Your task to perform on an android device: Open the Play Movies app and select the watchlist tab. Image 0: 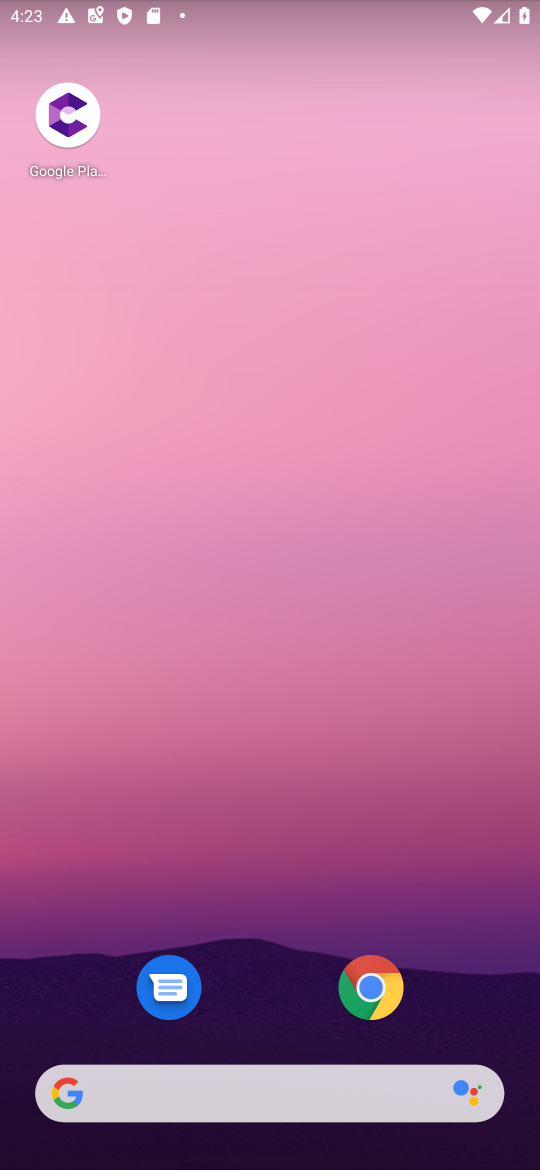
Step 0: drag from (237, 989) to (295, 511)
Your task to perform on an android device: Open the Play Movies app and select the watchlist tab. Image 1: 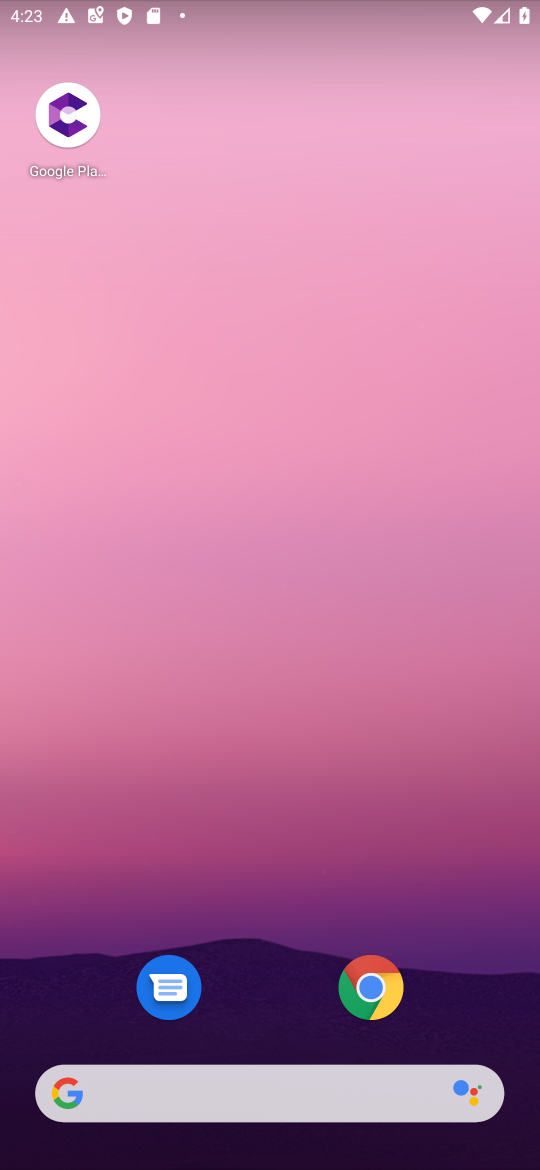
Step 1: drag from (282, 986) to (346, 13)
Your task to perform on an android device: Open the Play Movies app and select the watchlist tab. Image 2: 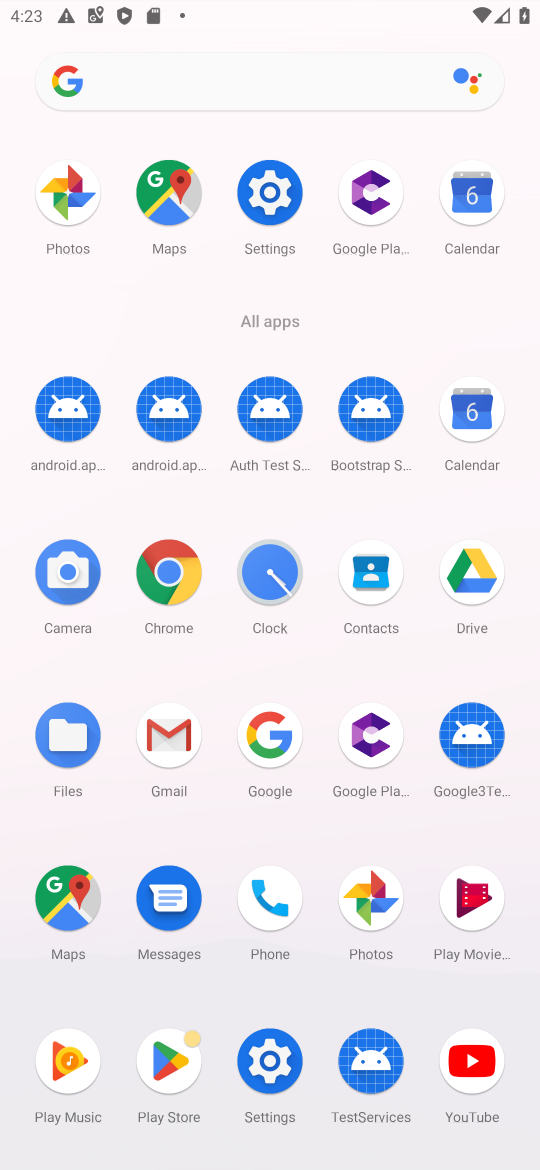
Step 2: click (477, 924)
Your task to perform on an android device: Open the Play Movies app and select the watchlist tab. Image 3: 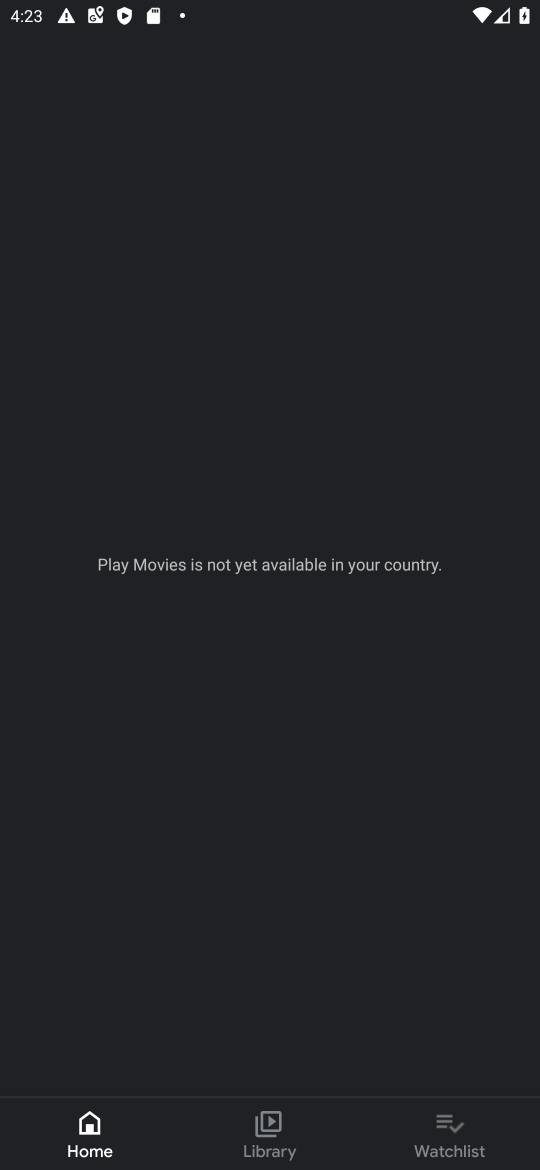
Step 3: click (460, 1131)
Your task to perform on an android device: Open the Play Movies app and select the watchlist tab. Image 4: 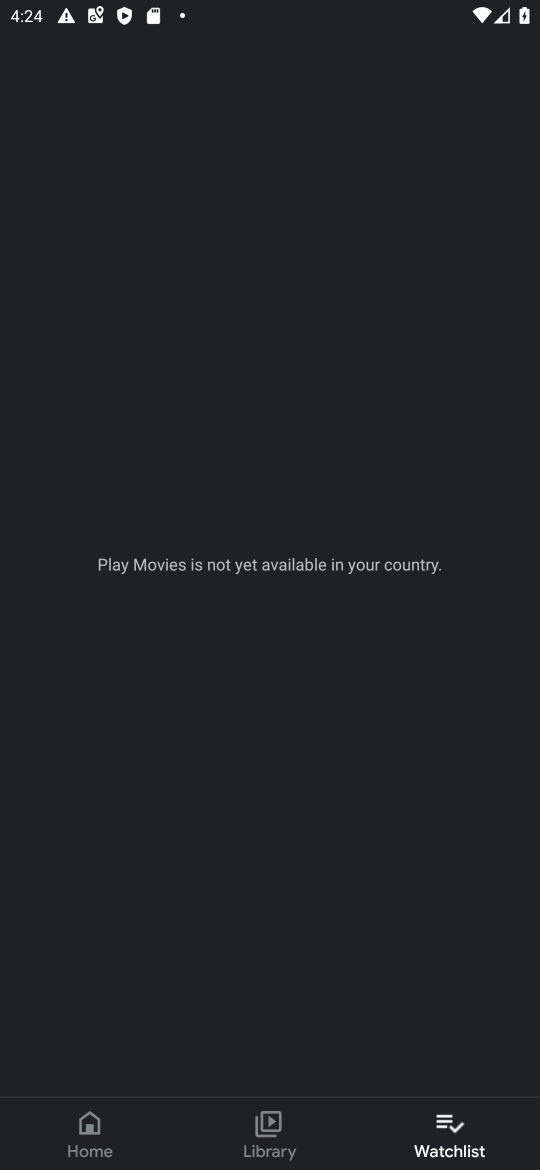
Step 4: task complete